Your task to perform on an android device: Open my contact list Image 0: 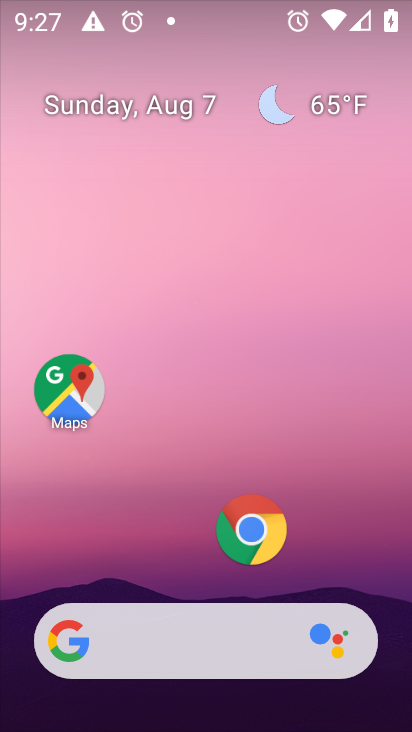
Step 0: drag from (168, 579) to (204, 0)
Your task to perform on an android device: Open my contact list Image 1: 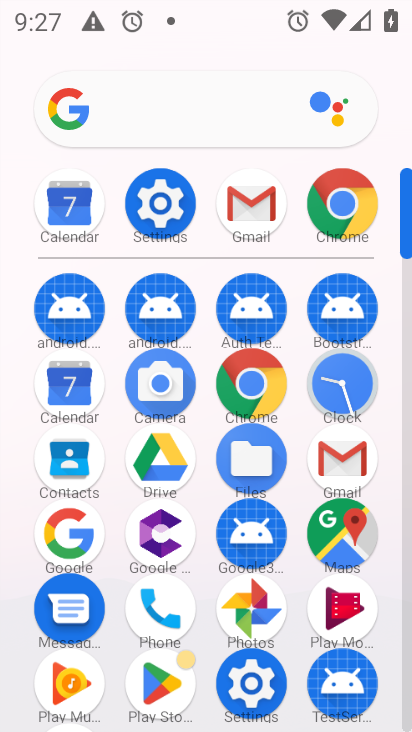
Step 1: click (72, 467)
Your task to perform on an android device: Open my contact list Image 2: 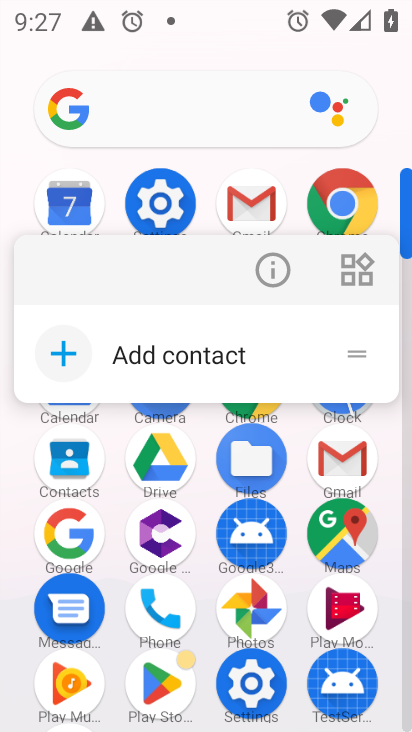
Step 2: click (69, 467)
Your task to perform on an android device: Open my contact list Image 3: 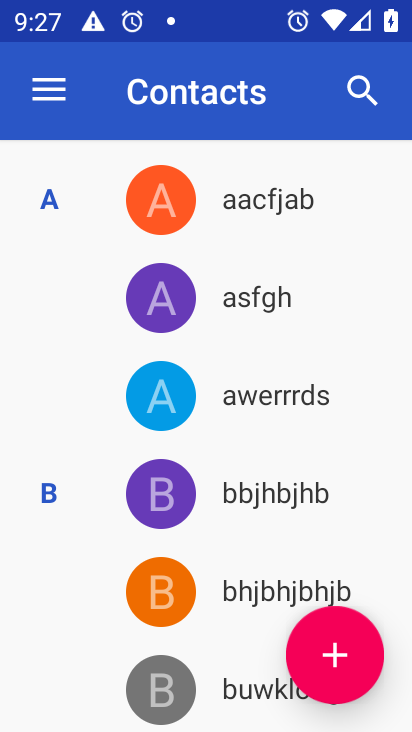
Step 3: task complete